Your task to perform on an android device: What's on my calendar today? Image 0: 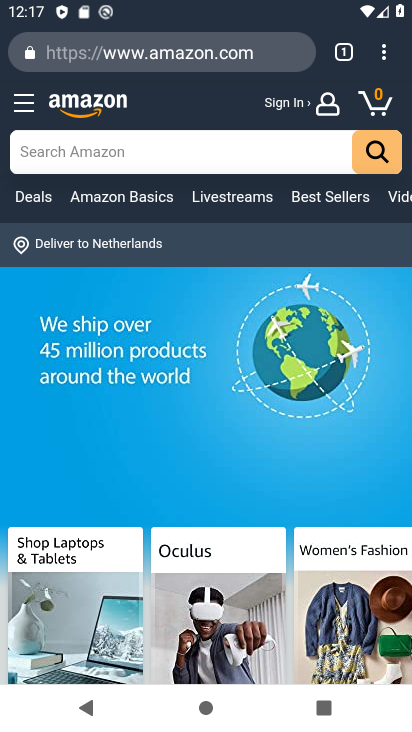
Step 0: press home button
Your task to perform on an android device: What's on my calendar today? Image 1: 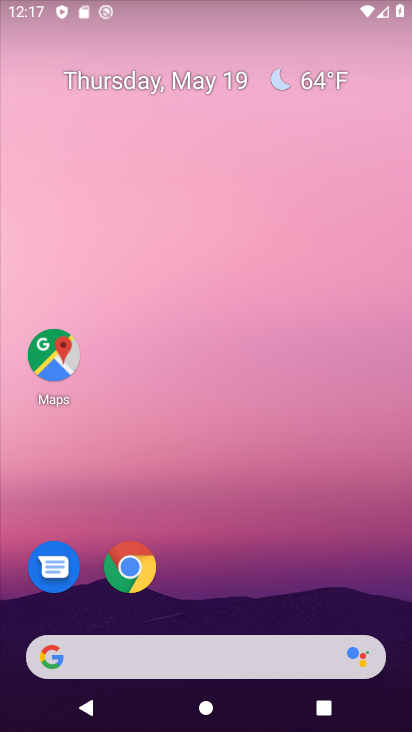
Step 1: drag from (257, 614) to (300, 174)
Your task to perform on an android device: What's on my calendar today? Image 2: 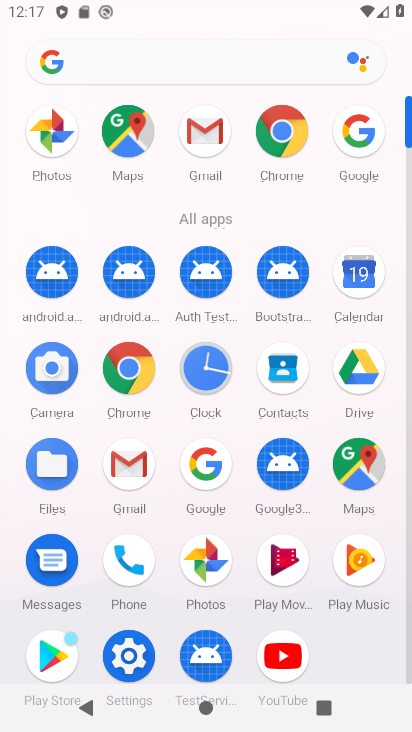
Step 2: click (345, 286)
Your task to perform on an android device: What's on my calendar today? Image 3: 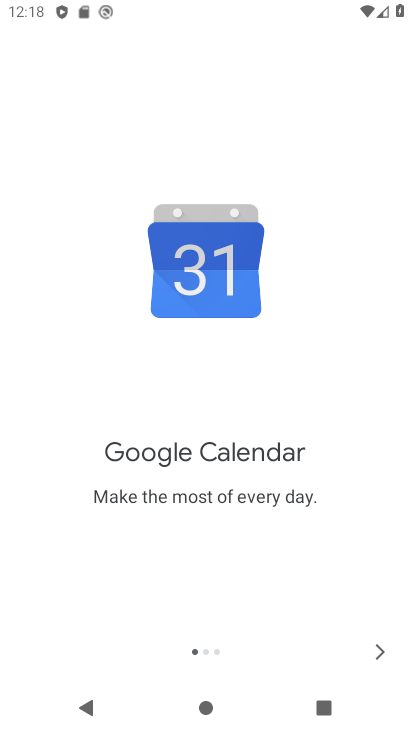
Step 3: click (371, 658)
Your task to perform on an android device: What's on my calendar today? Image 4: 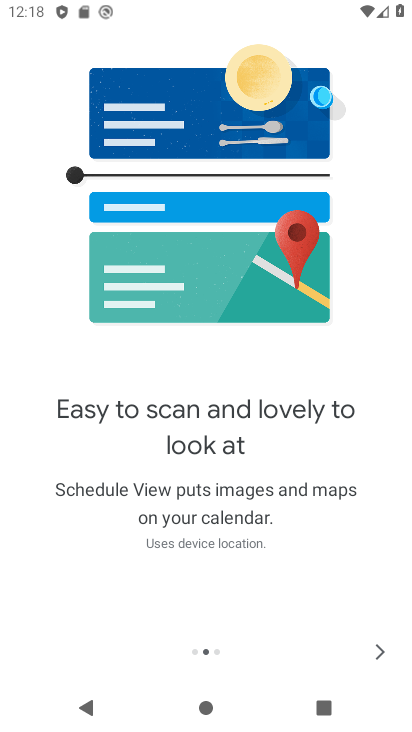
Step 4: click (380, 656)
Your task to perform on an android device: What's on my calendar today? Image 5: 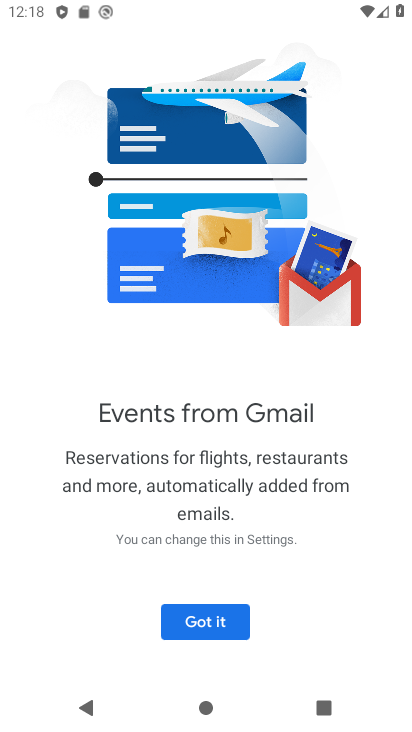
Step 5: click (218, 624)
Your task to perform on an android device: What's on my calendar today? Image 6: 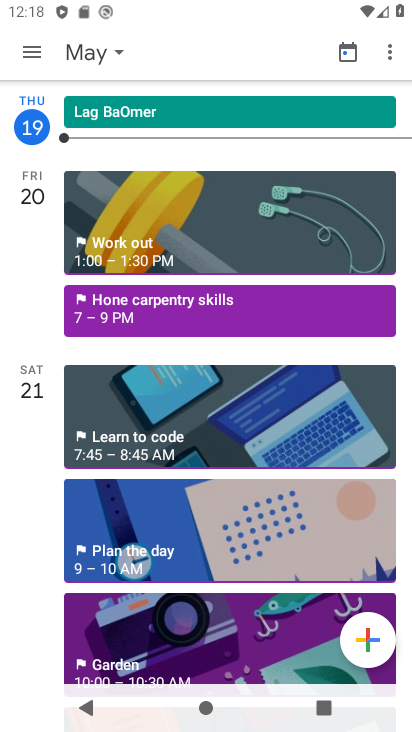
Step 6: click (110, 59)
Your task to perform on an android device: What's on my calendar today? Image 7: 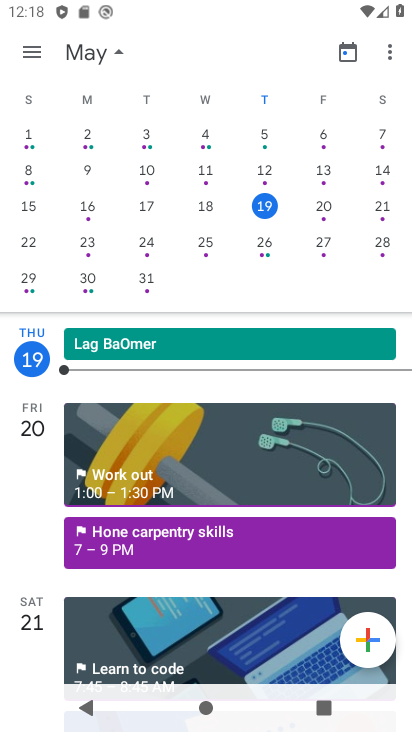
Step 7: click (264, 215)
Your task to perform on an android device: What's on my calendar today? Image 8: 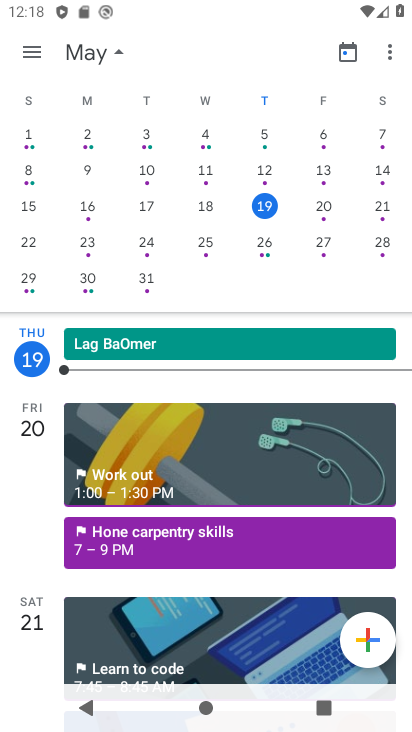
Step 8: task complete